Your task to perform on an android device: Open Yahoo.com Image 0: 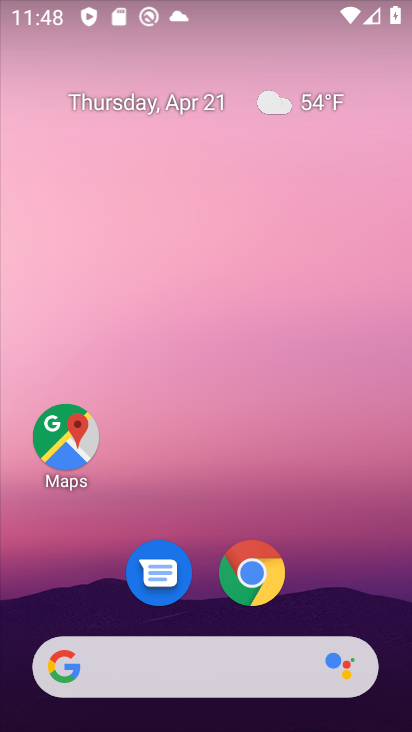
Step 0: drag from (188, 655) to (270, 60)
Your task to perform on an android device: Open Yahoo.com Image 1: 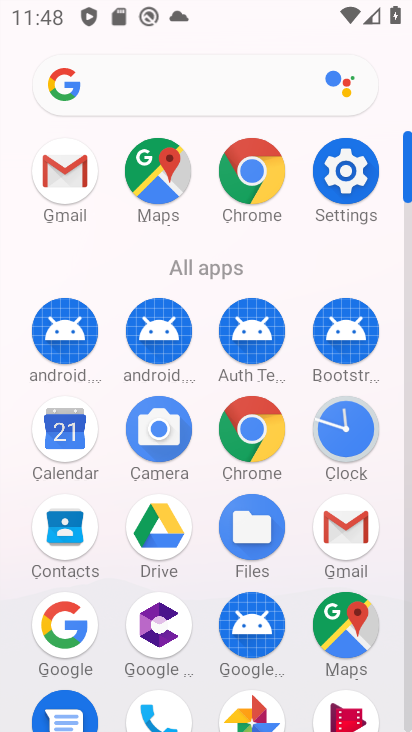
Step 1: click (259, 183)
Your task to perform on an android device: Open Yahoo.com Image 2: 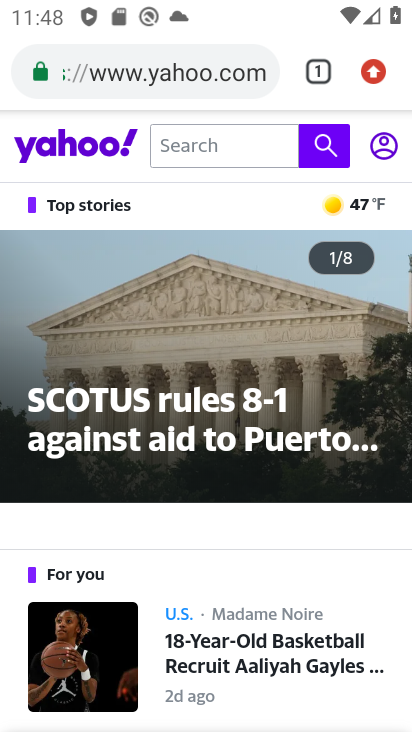
Step 2: task complete